Your task to perform on an android device: add a label to a message in the gmail app Image 0: 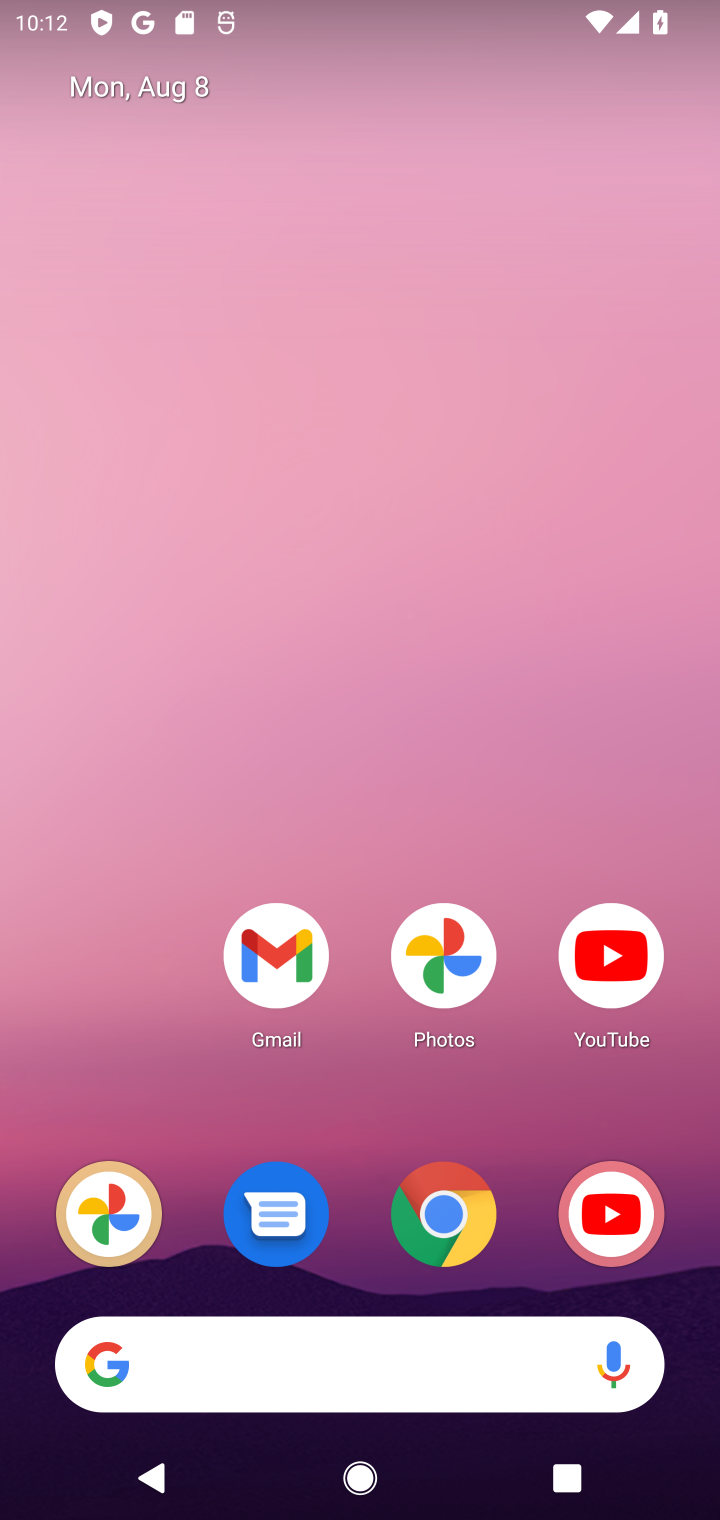
Step 0: click (279, 997)
Your task to perform on an android device: add a label to a message in the gmail app Image 1: 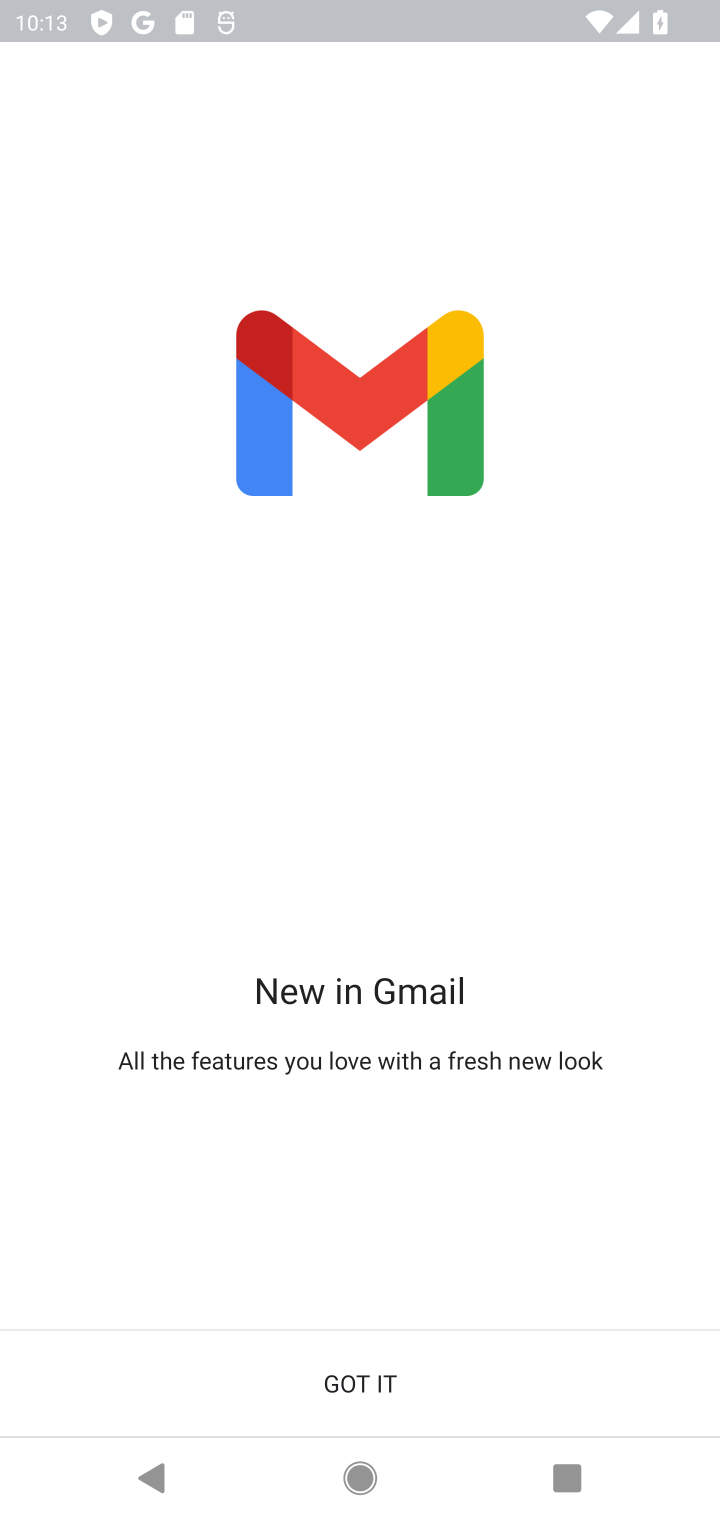
Step 1: click (397, 1379)
Your task to perform on an android device: add a label to a message in the gmail app Image 2: 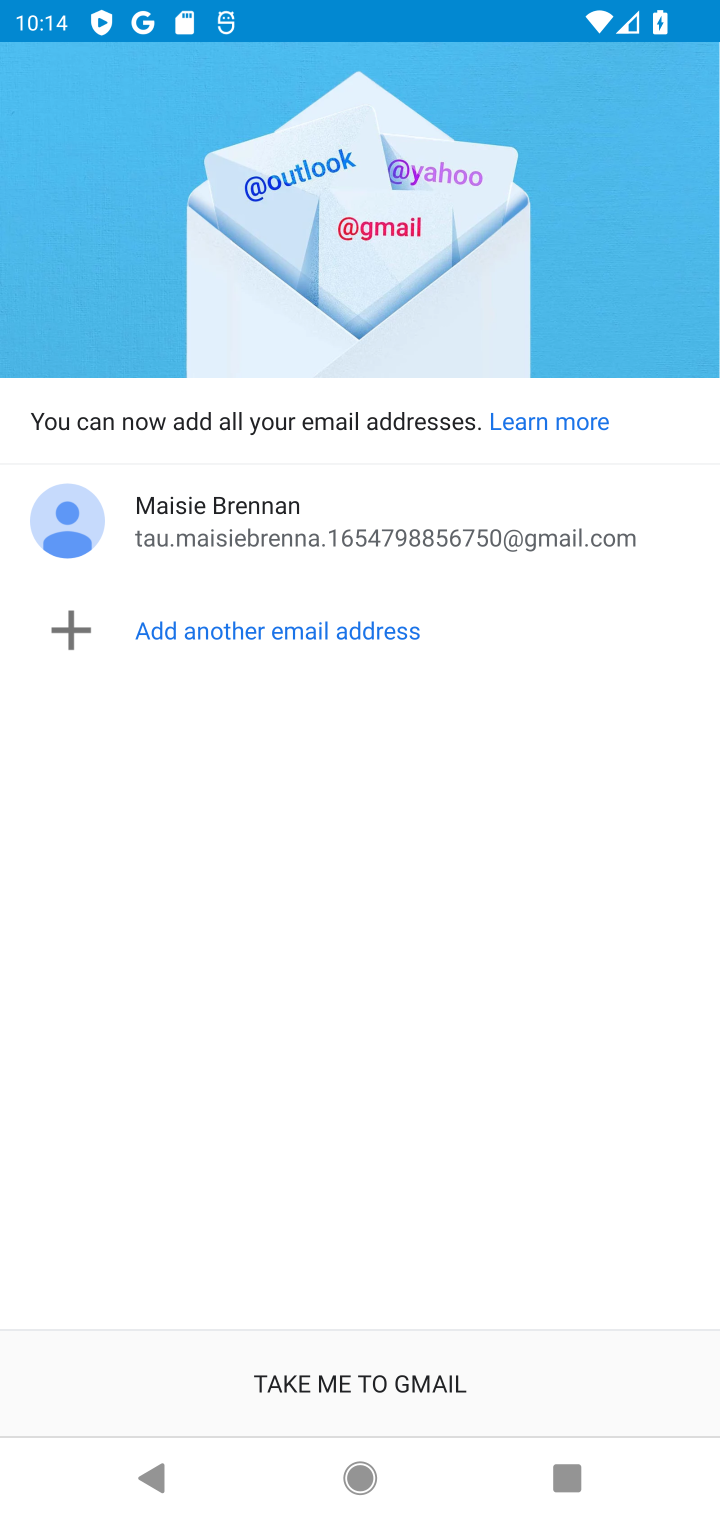
Step 2: click (308, 1360)
Your task to perform on an android device: add a label to a message in the gmail app Image 3: 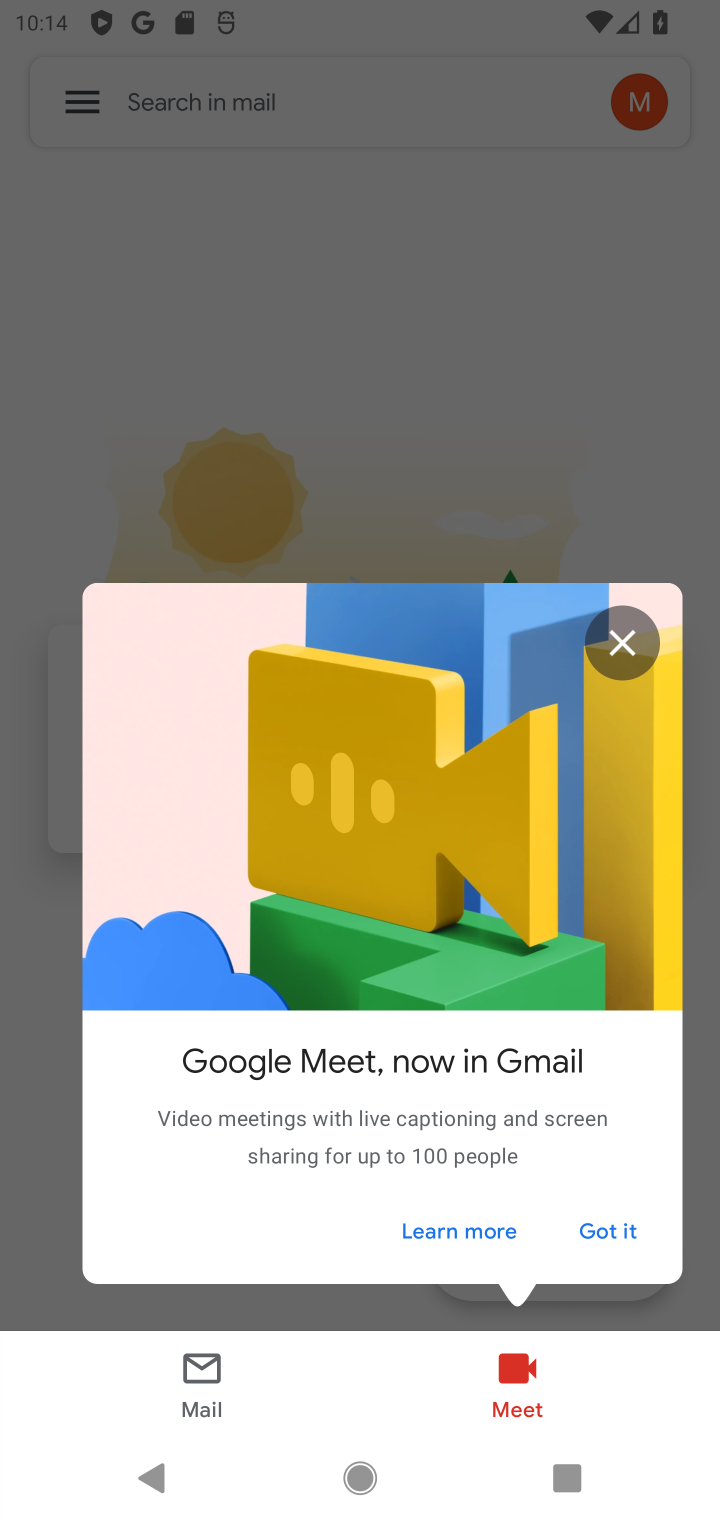
Step 3: click (624, 1229)
Your task to perform on an android device: add a label to a message in the gmail app Image 4: 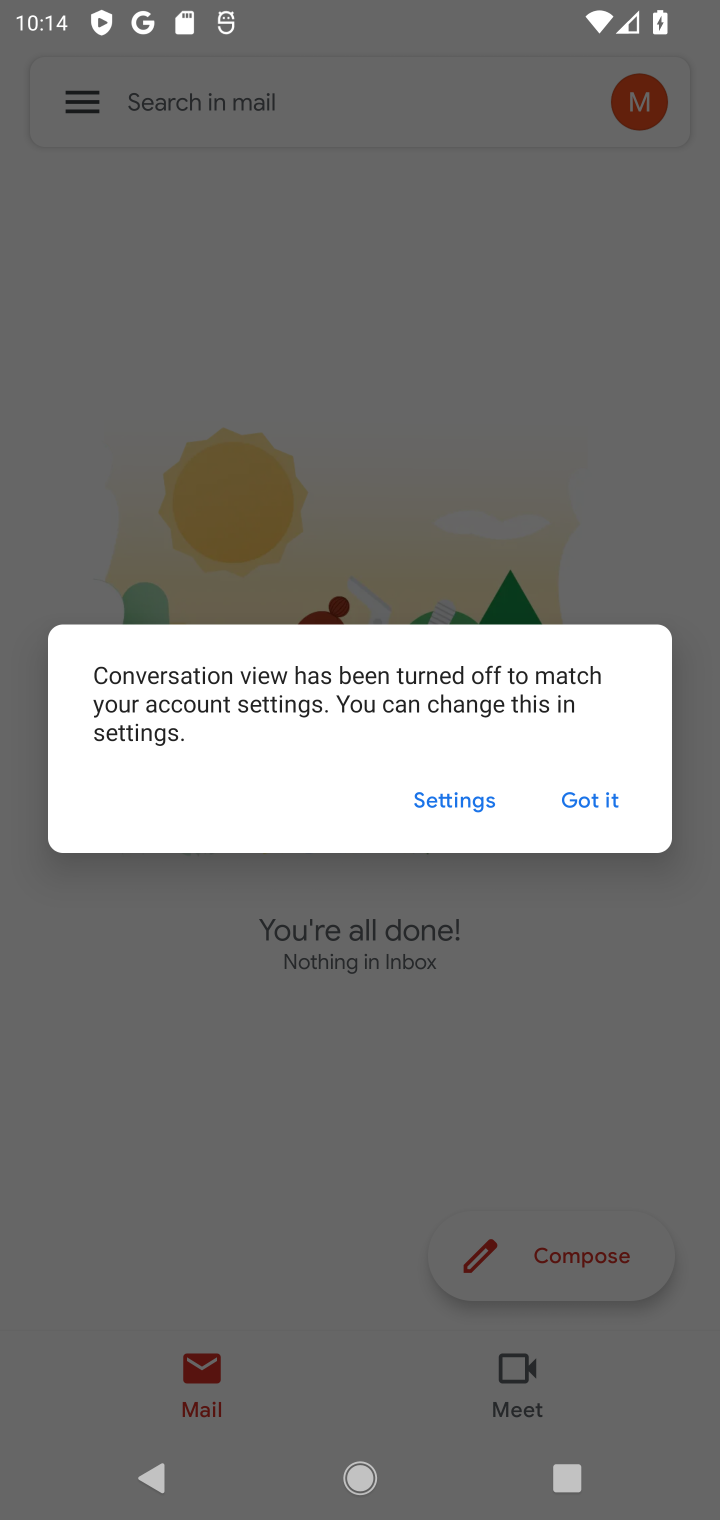
Step 4: click (583, 786)
Your task to perform on an android device: add a label to a message in the gmail app Image 5: 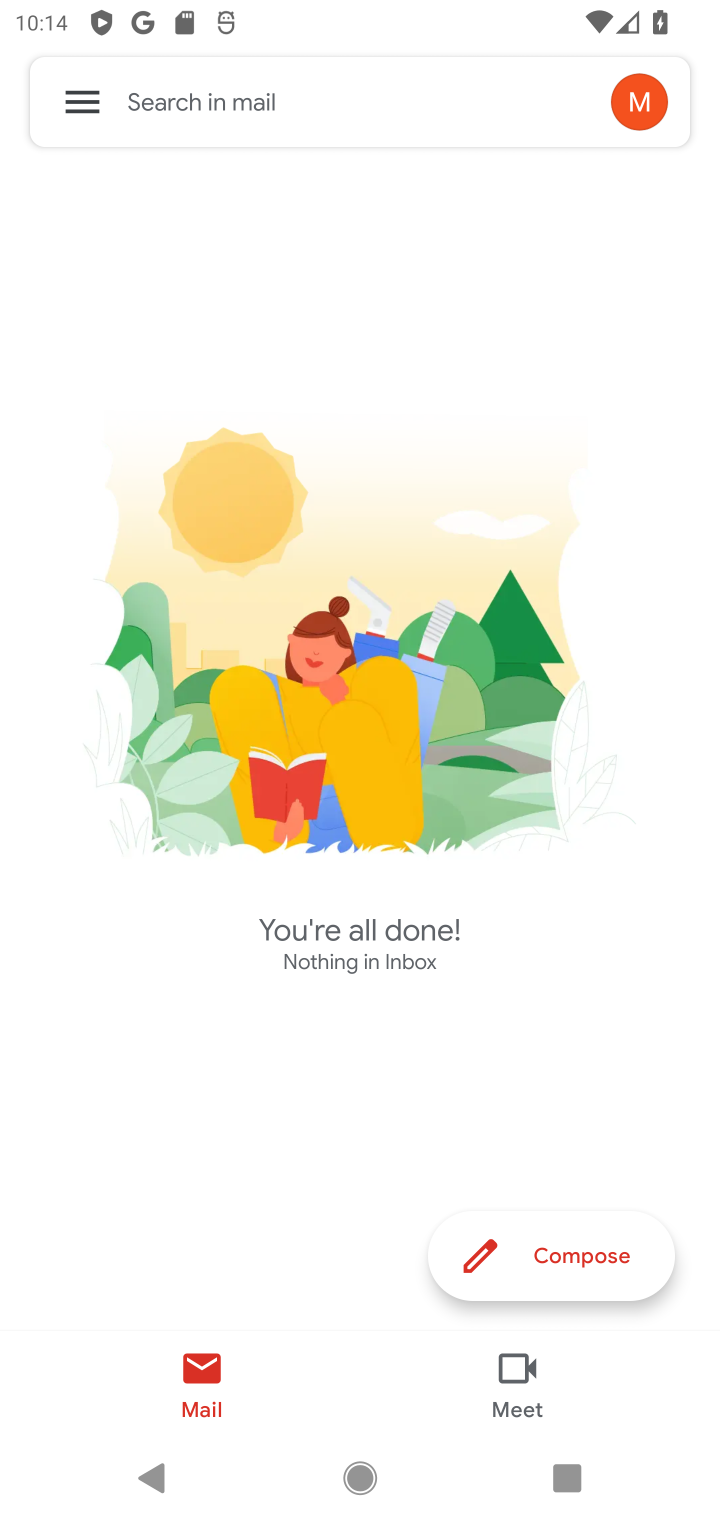
Step 5: task complete